Your task to perform on an android device: Go to ESPN.com Image 0: 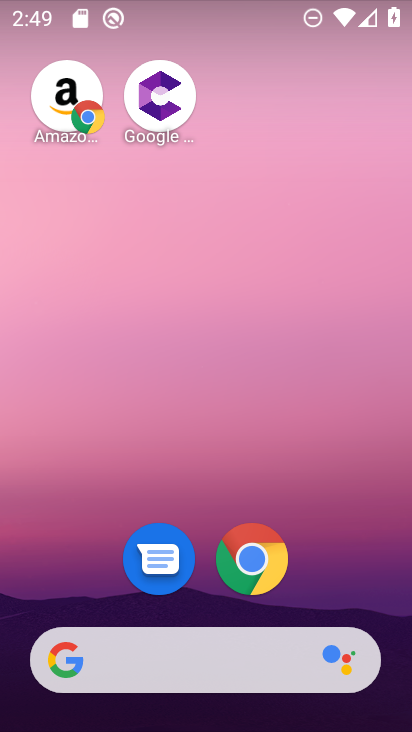
Step 0: click (230, 567)
Your task to perform on an android device: Go to ESPN.com Image 1: 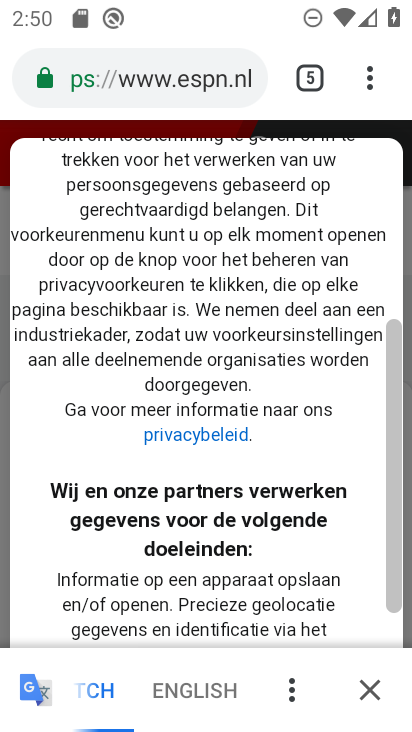
Step 1: task complete